Your task to perform on an android device: Search for 3d printer on AliExpress Image 0: 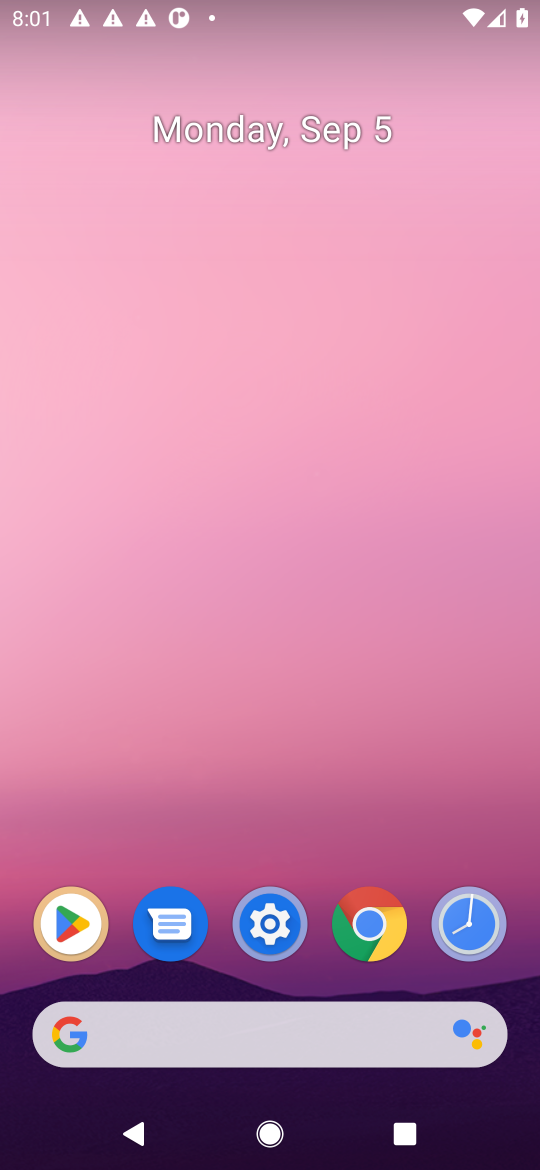
Step 0: click (345, 1032)
Your task to perform on an android device: Search for 3d printer on AliExpress Image 1: 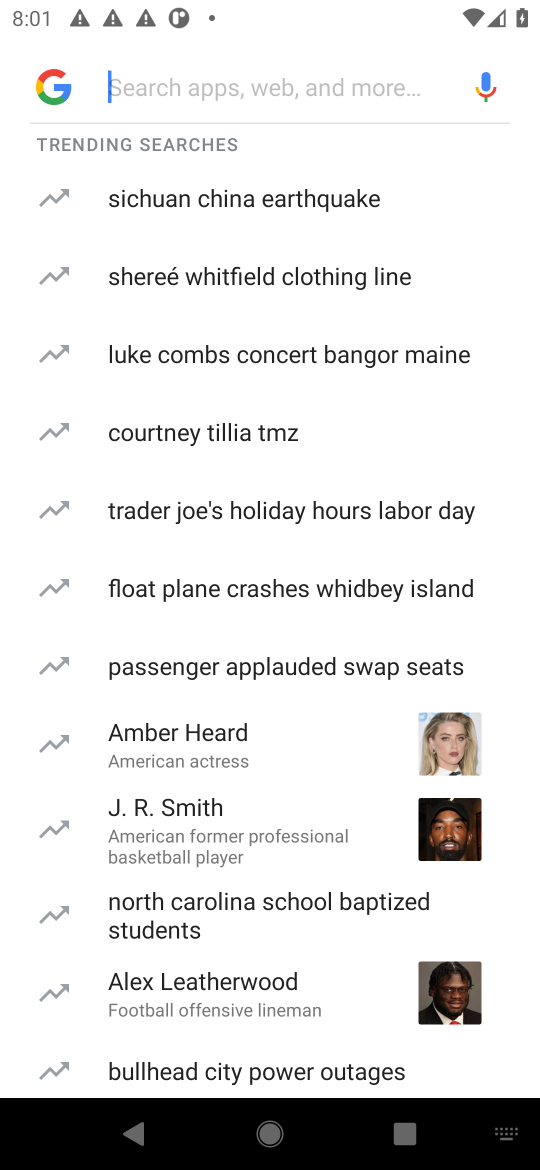
Step 1: press enter
Your task to perform on an android device: Search for 3d printer on AliExpress Image 2: 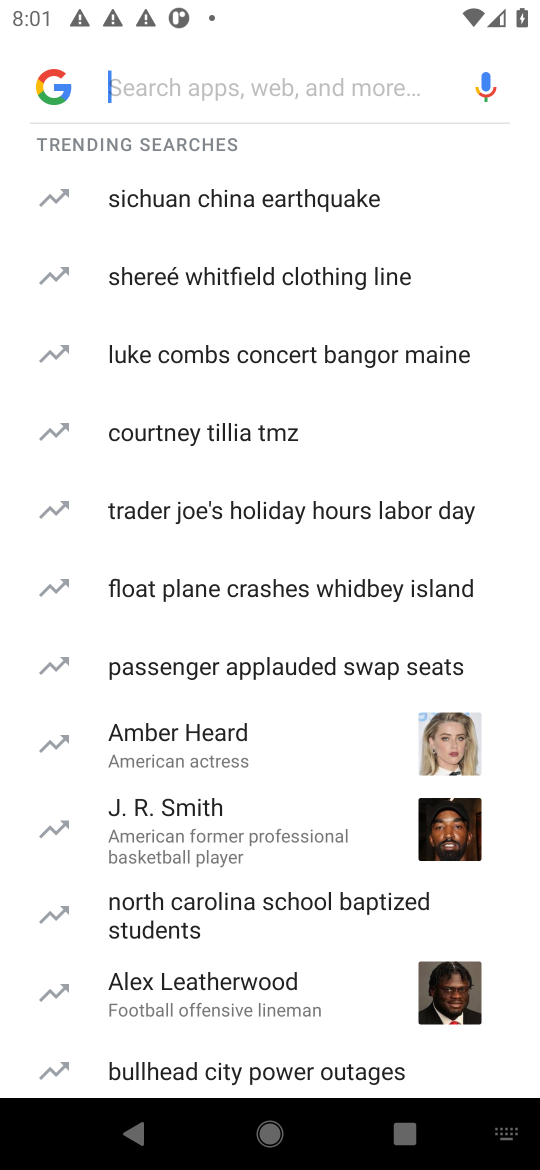
Step 2: type "aliexpress"
Your task to perform on an android device: Search for 3d printer on AliExpress Image 3: 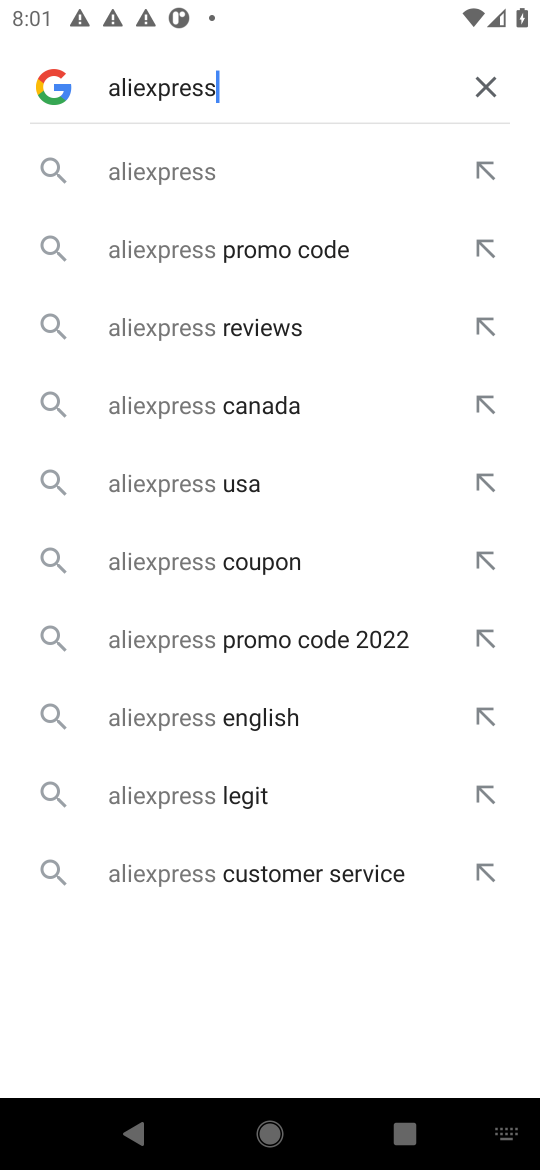
Step 3: click (234, 173)
Your task to perform on an android device: Search for 3d printer on AliExpress Image 4: 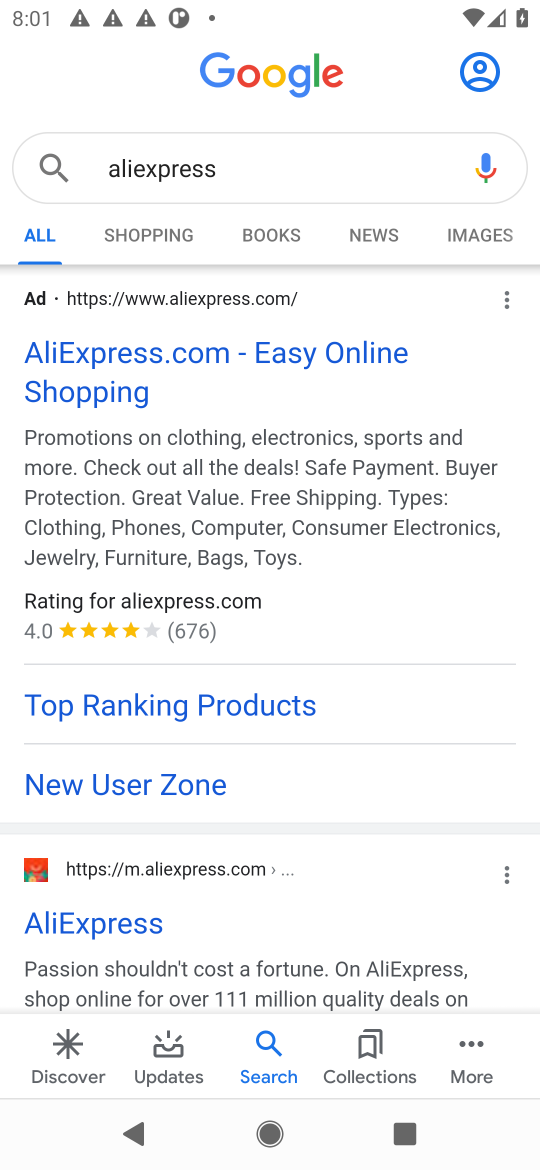
Step 4: click (114, 355)
Your task to perform on an android device: Search for 3d printer on AliExpress Image 5: 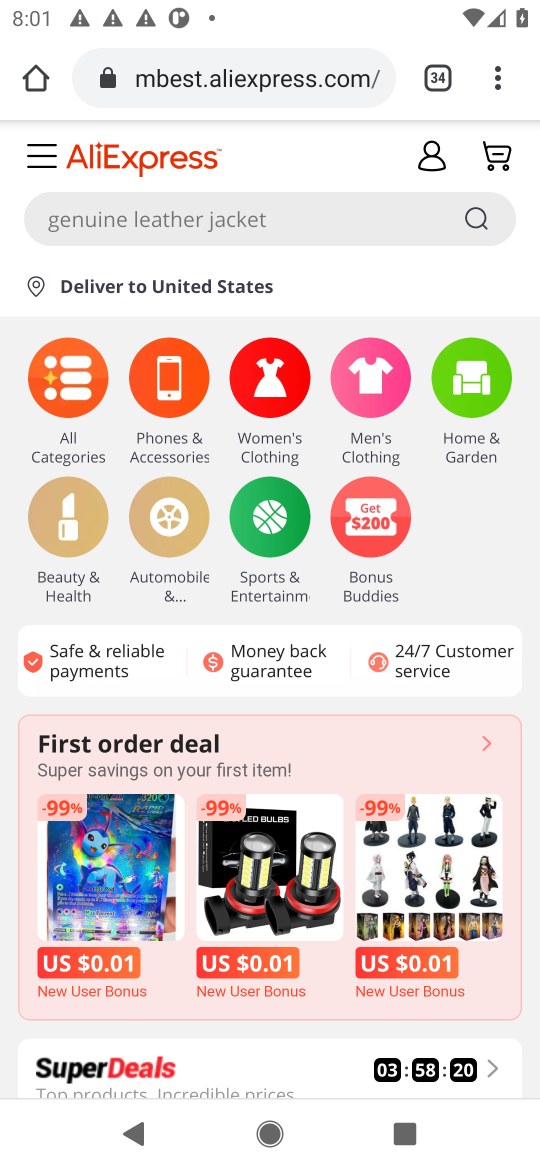
Step 5: click (191, 219)
Your task to perform on an android device: Search for 3d printer on AliExpress Image 6: 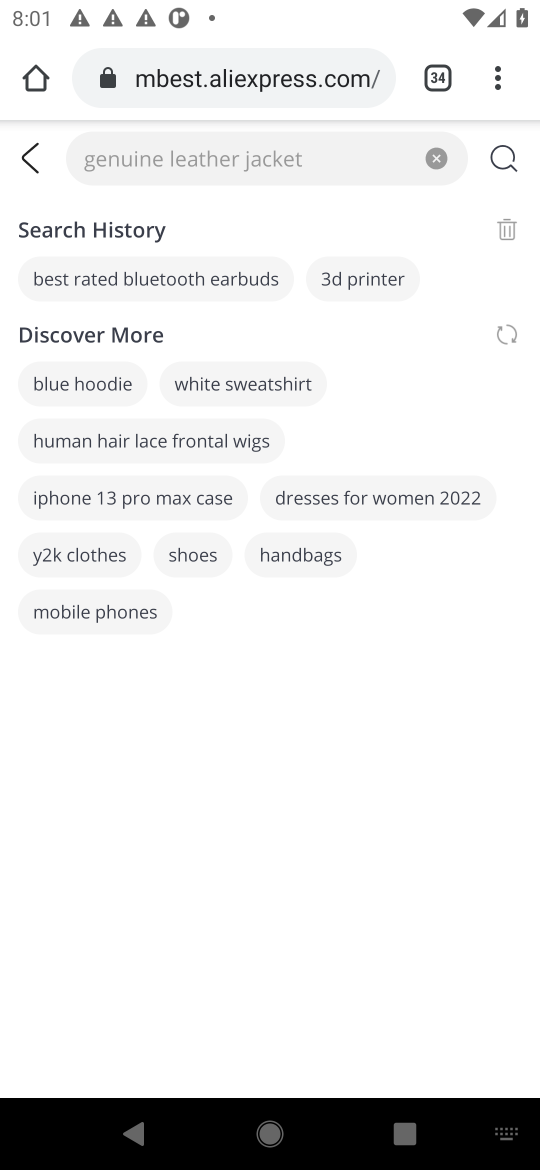
Step 6: click (366, 267)
Your task to perform on an android device: Search for 3d printer on AliExpress Image 7: 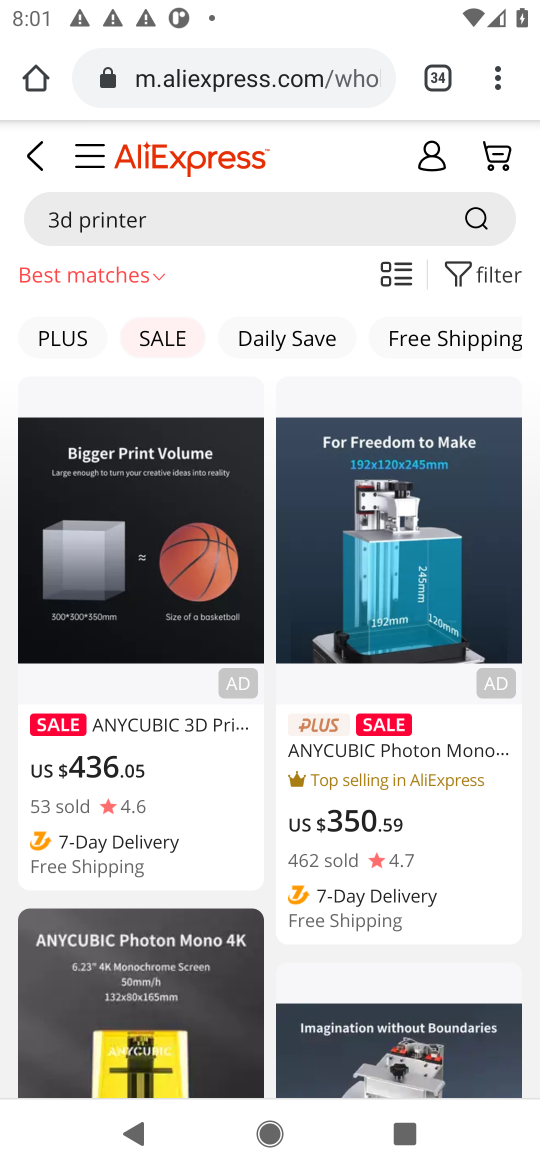
Step 7: task complete